Your task to perform on an android device: turn on sleep mode Image 0: 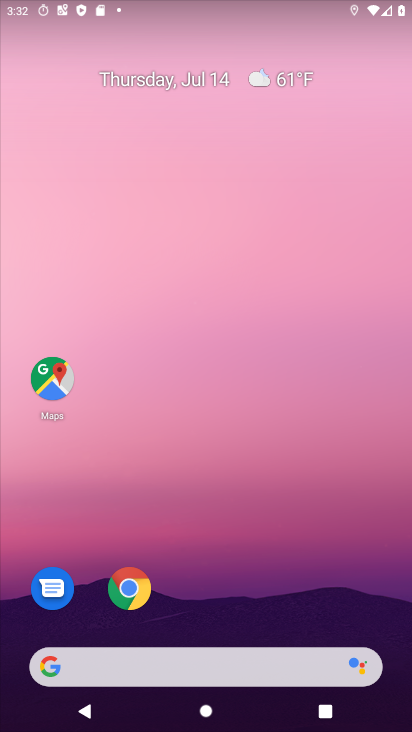
Step 0: drag from (185, 658) to (295, 189)
Your task to perform on an android device: turn on sleep mode Image 1: 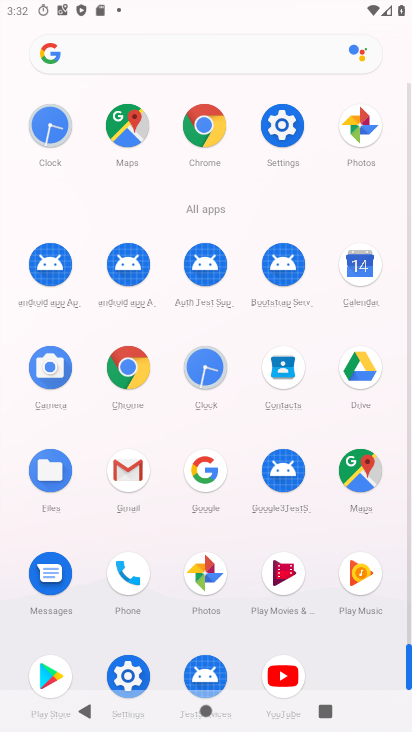
Step 1: click (281, 123)
Your task to perform on an android device: turn on sleep mode Image 2: 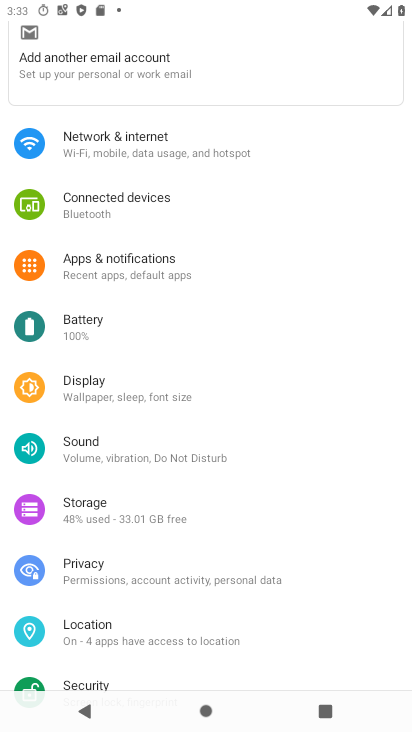
Step 2: drag from (131, 472) to (203, 390)
Your task to perform on an android device: turn on sleep mode Image 3: 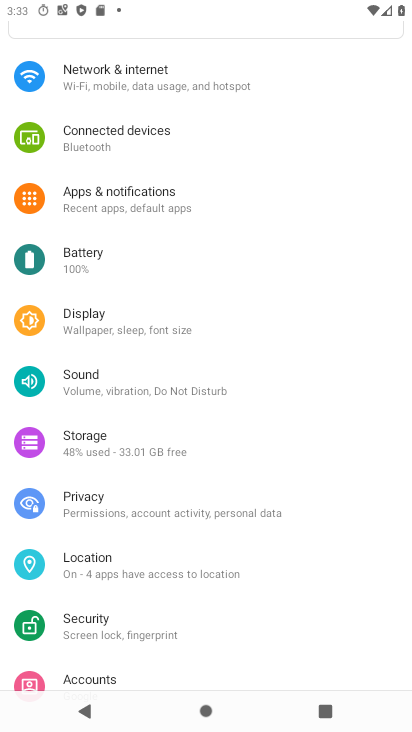
Step 3: click (189, 335)
Your task to perform on an android device: turn on sleep mode Image 4: 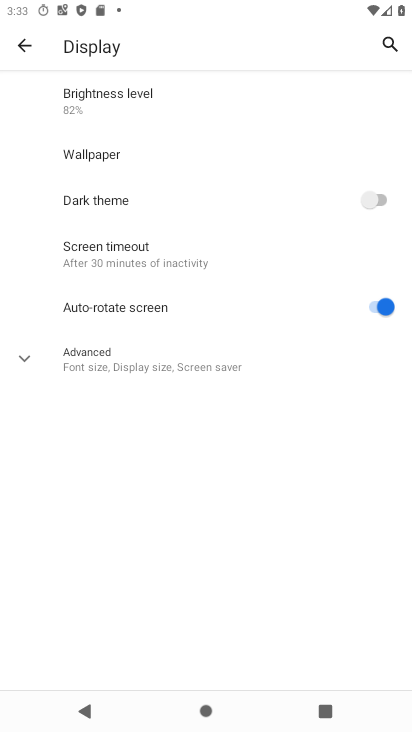
Step 4: click (173, 369)
Your task to perform on an android device: turn on sleep mode Image 5: 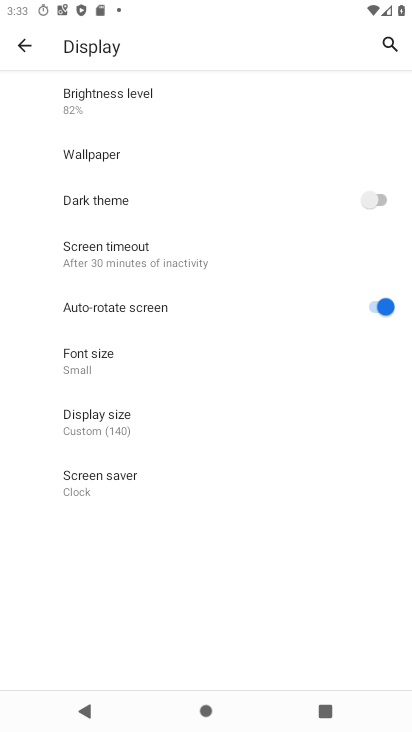
Step 5: click (99, 483)
Your task to perform on an android device: turn on sleep mode Image 6: 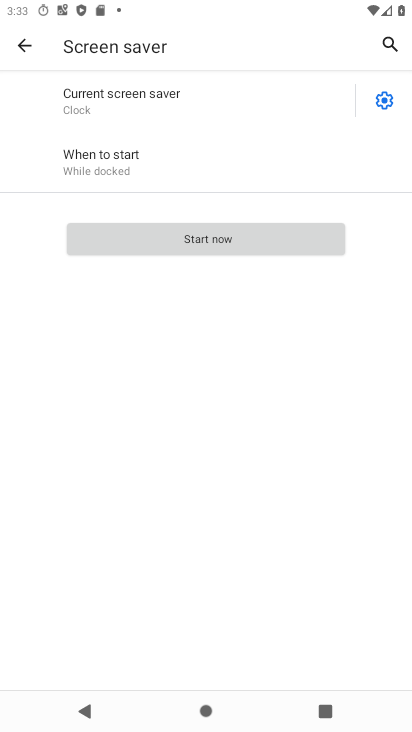
Step 6: task complete